Your task to perform on an android device: Open network settings Image 0: 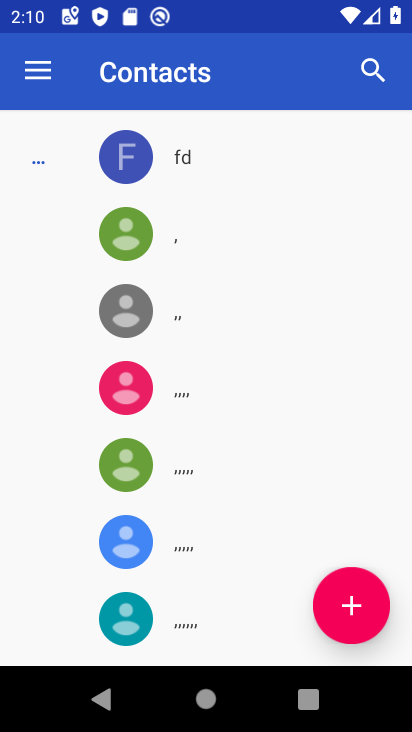
Step 0: press home button
Your task to perform on an android device: Open network settings Image 1: 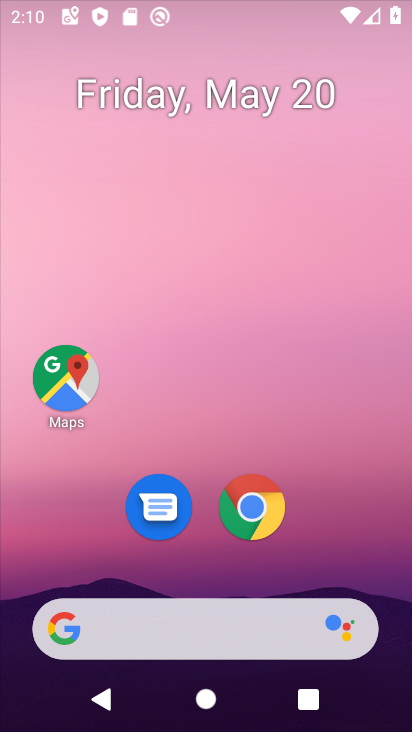
Step 1: drag from (223, 726) to (221, 241)
Your task to perform on an android device: Open network settings Image 2: 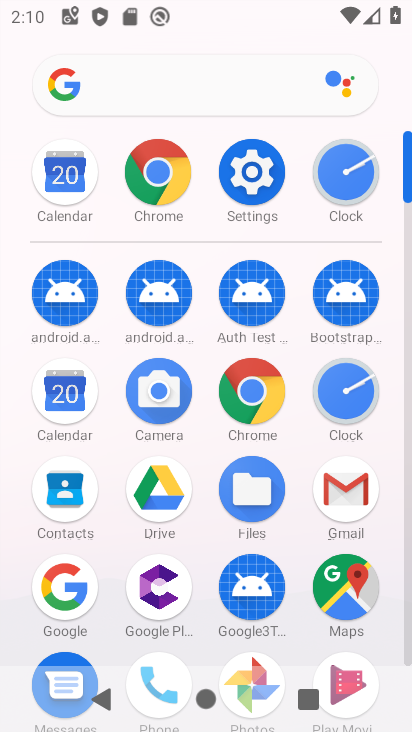
Step 2: click (258, 163)
Your task to perform on an android device: Open network settings Image 3: 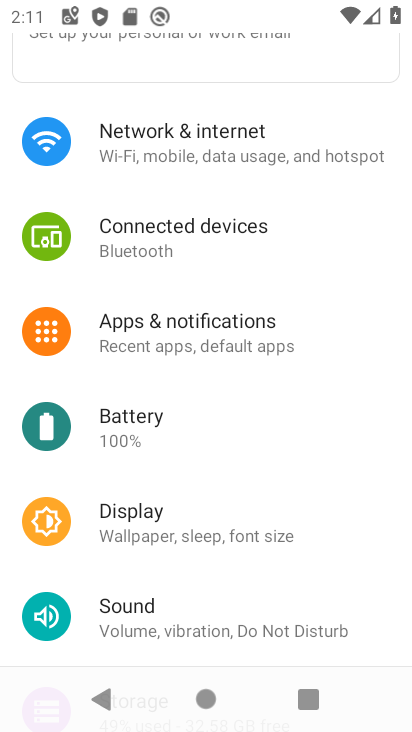
Step 3: click (221, 136)
Your task to perform on an android device: Open network settings Image 4: 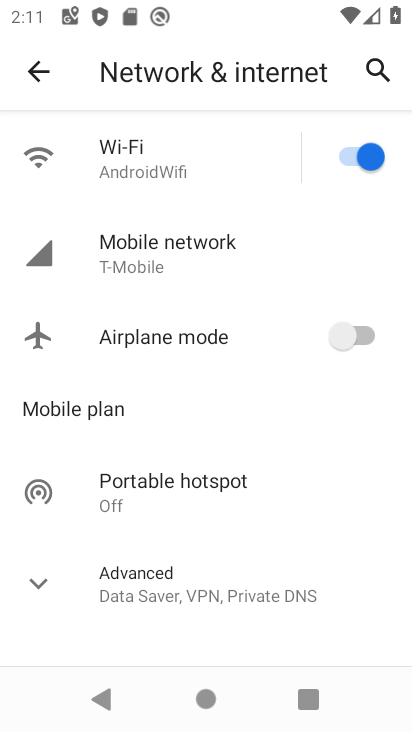
Step 4: click (151, 241)
Your task to perform on an android device: Open network settings Image 5: 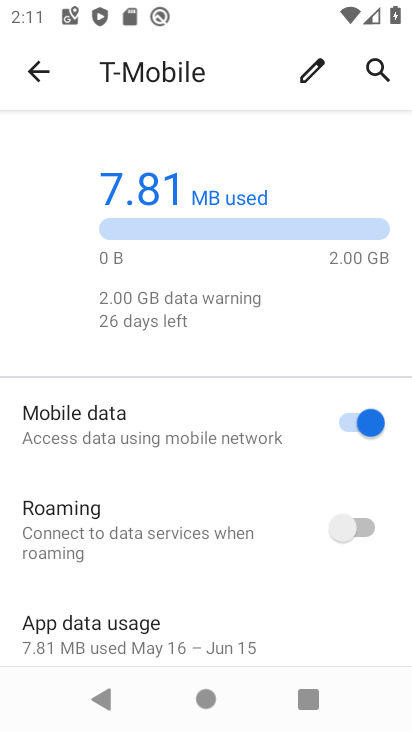
Step 5: task complete